Your task to perform on an android device: Search for vegetarian restaurants on Maps Image 0: 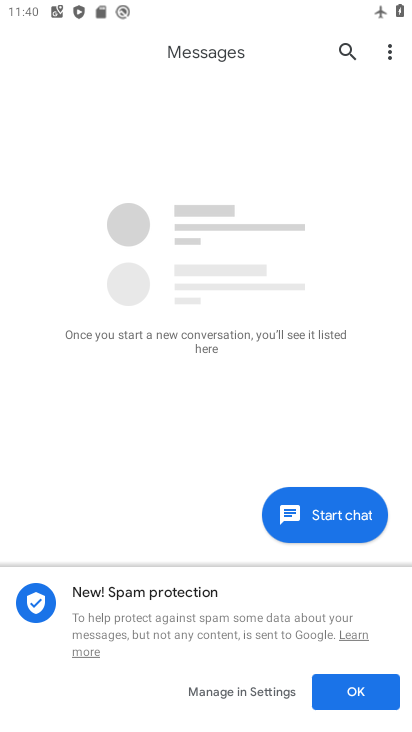
Step 0: press home button
Your task to perform on an android device: Search for vegetarian restaurants on Maps Image 1: 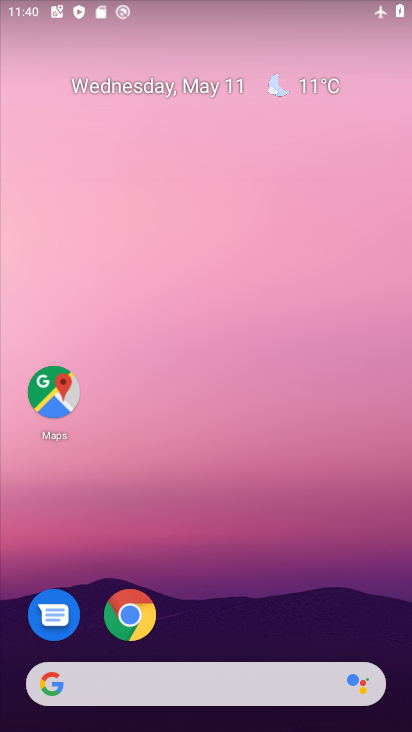
Step 1: drag from (244, 612) to (230, 563)
Your task to perform on an android device: Search for vegetarian restaurants on Maps Image 2: 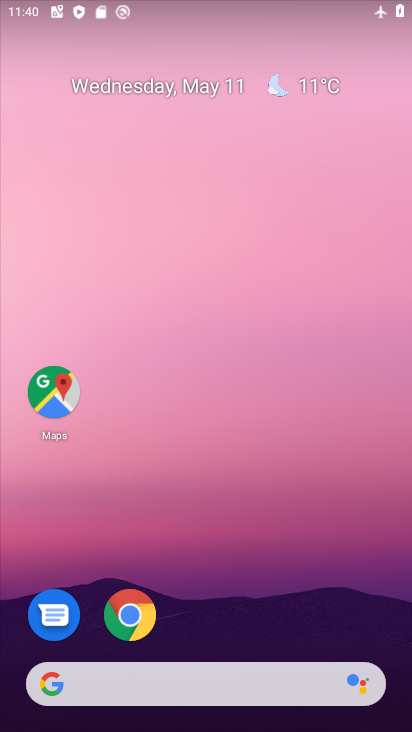
Step 2: click (59, 392)
Your task to perform on an android device: Search for vegetarian restaurants on Maps Image 3: 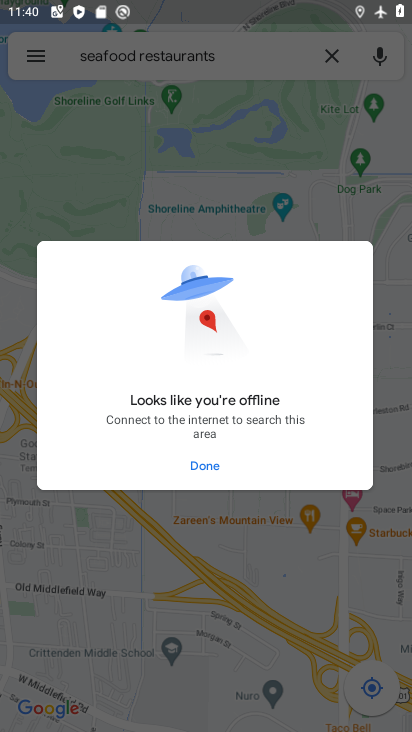
Step 3: click (209, 479)
Your task to perform on an android device: Search for vegetarian restaurants on Maps Image 4: 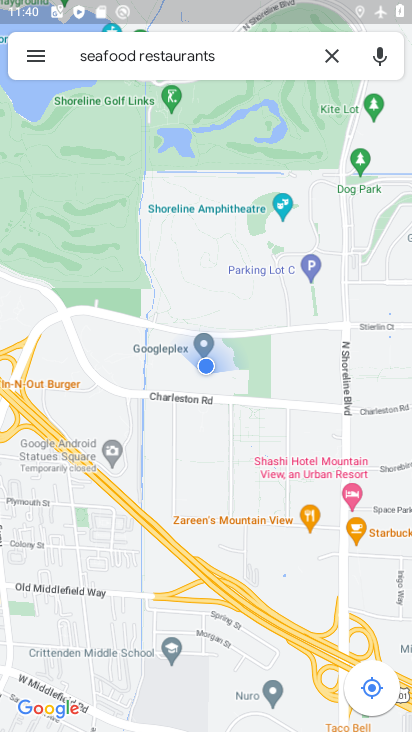
Step 4: click (260, 49)
Your task to perform on an android device: Search for vegetarian restaurants on Maps Image 5: 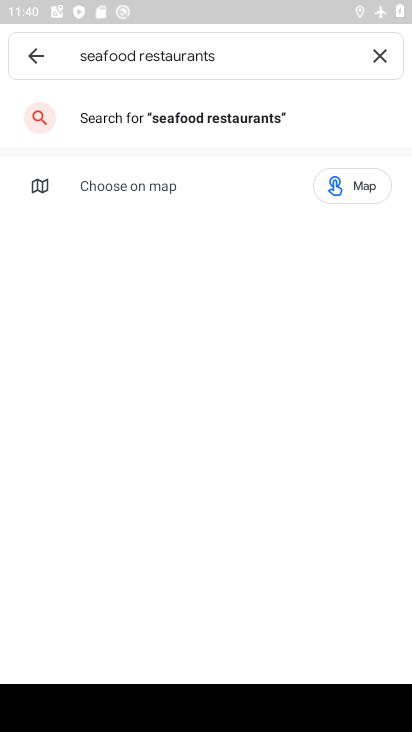
Step 5: type "vegetarian restaurants"
Your task to perform on an android device: Search for vegetarian restaurants on Maps Image 6: 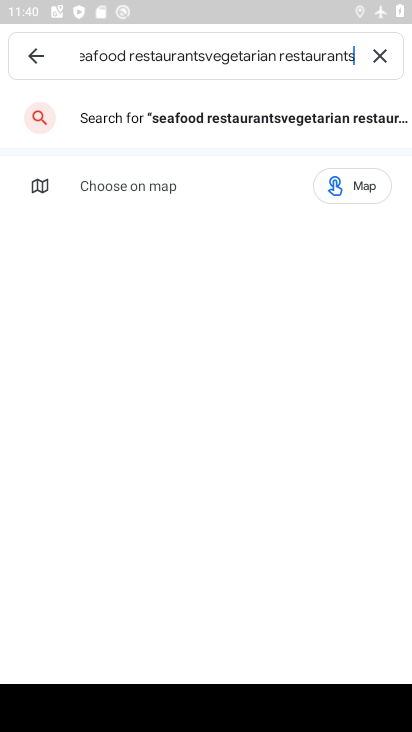
Step 6: click (380, 49)
Your task to perform on an android device: Search for vegetarian restaurants on Maps Image 7: 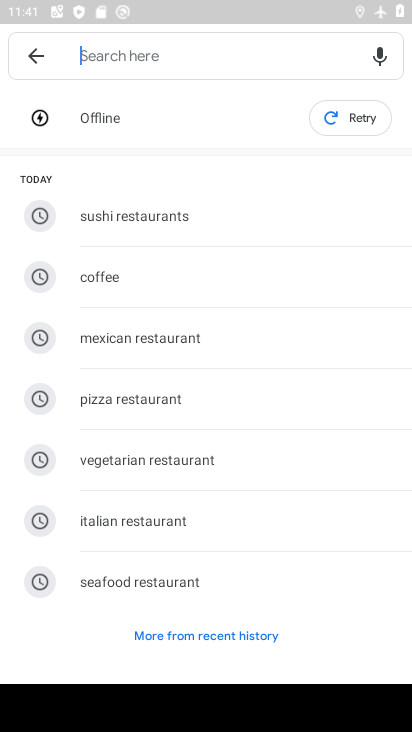
Step 7: click (198, 459)
Your task to perform on an android device: Search for vegetarian restaurants on Maps Image 8: 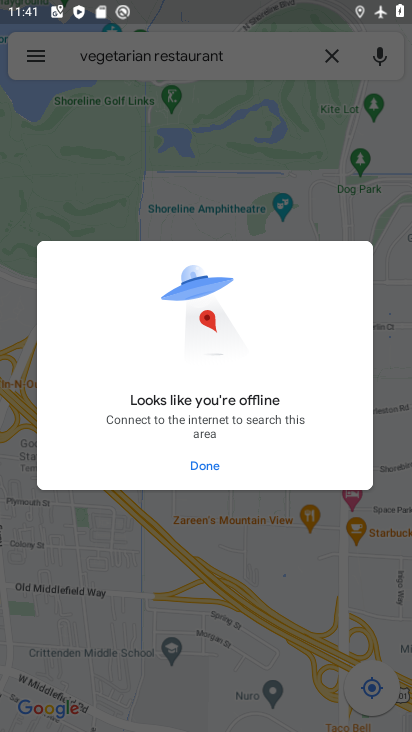
Step 8: task complete